Your task to perform on an android device: toggle improve location accuracy Image 0: 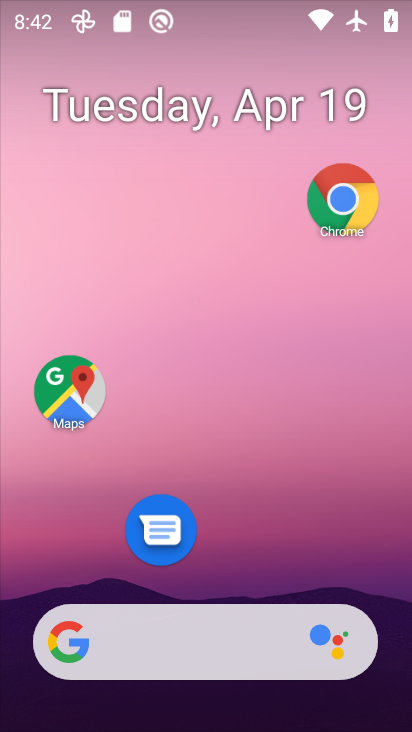
Step 0: drag from (211, 553) to (208, 269)
Your task to perform on an android device: toggle improve location accuracy Image 1: 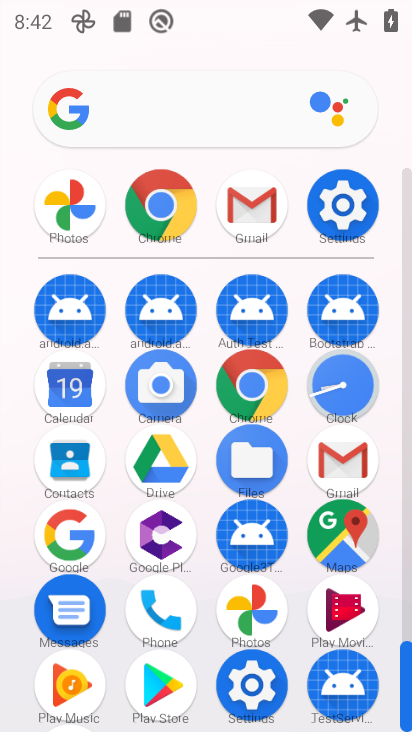
Step 1: click (244, 682)
Your task to perform on an android device: toggle improve location accuracy Image 2: 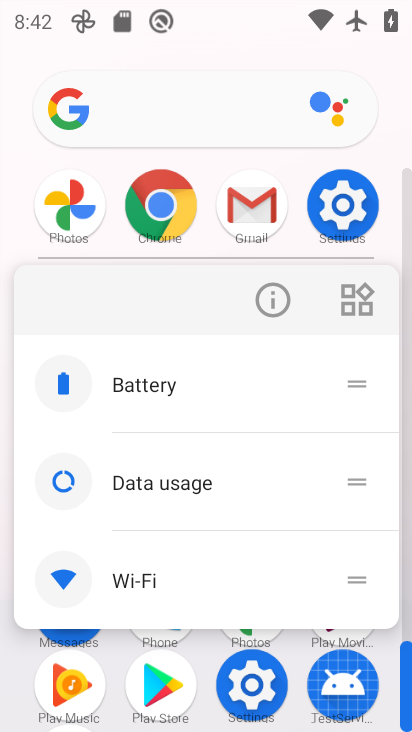
Step 2: click (269, 302)
Your task to perform on an android device: toggle improve location accuracy Image 3: 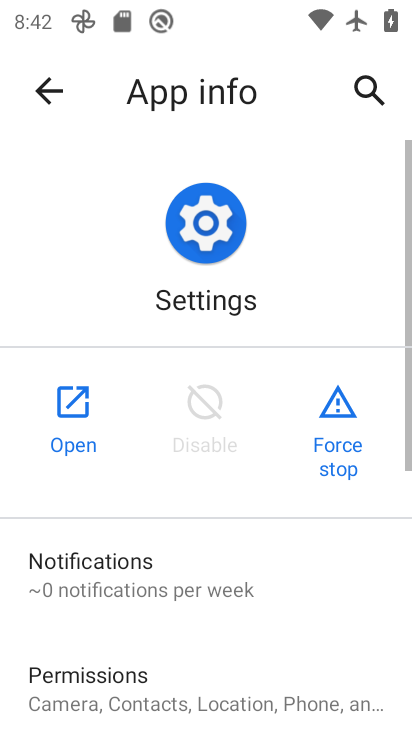
Step 3: click (93, 417)
Your task to perform on an android device: toggle improve location accuracy Image 4: 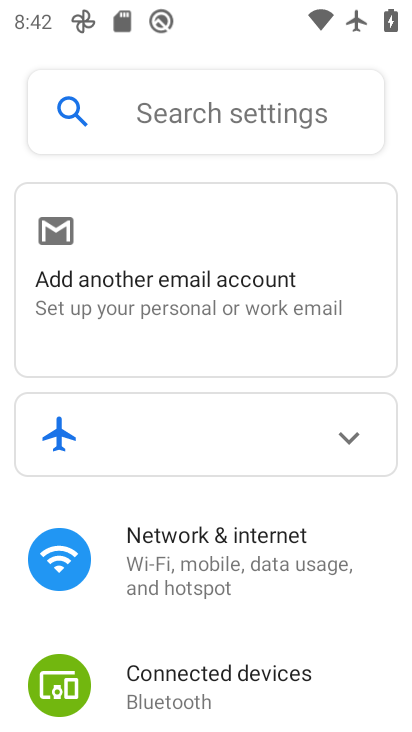
Step 4: drag from (248, 574) to (324, 218)
Your task to perform on an android device: toggle improve location accuracy Image 5: 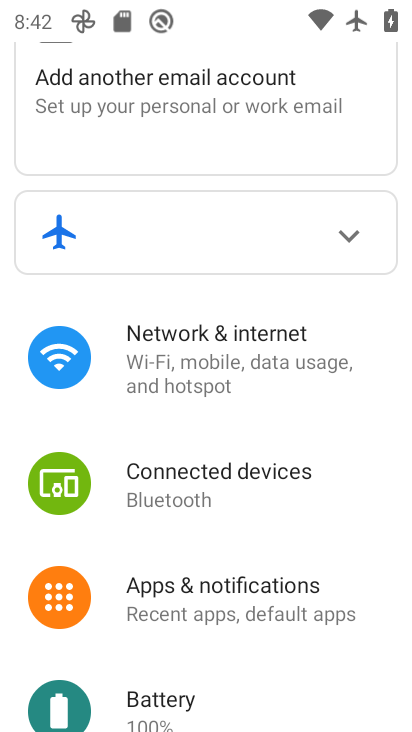
Step 5: drag from (249, 706) to (360, 236)
Your task to perform on an android device: toggle improve location accuracy Image 6: 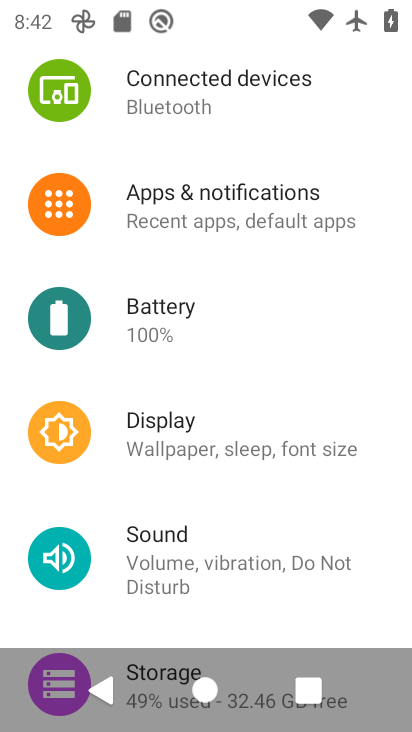
Step 6: drag from (206, 579) to (345, 97)
Your task to perform on an android device: toggle improve location accuracy Image 7: 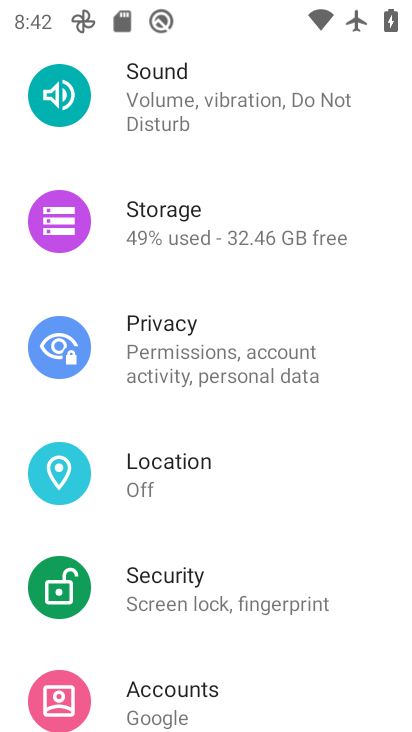
Step 7: drag from (198, 594) to (241, 339)
Your task to perform on an android device: toggle improve location accuracy Image 8: 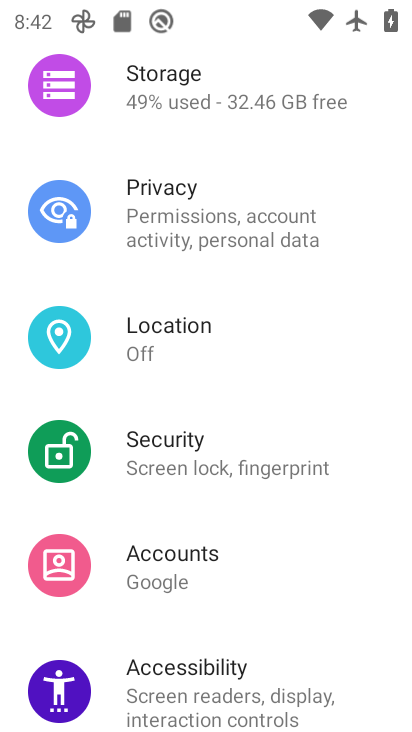
Step 8: click (151, 334)
Your task to perform on an android device: toggle improve location accuracy Image 9: 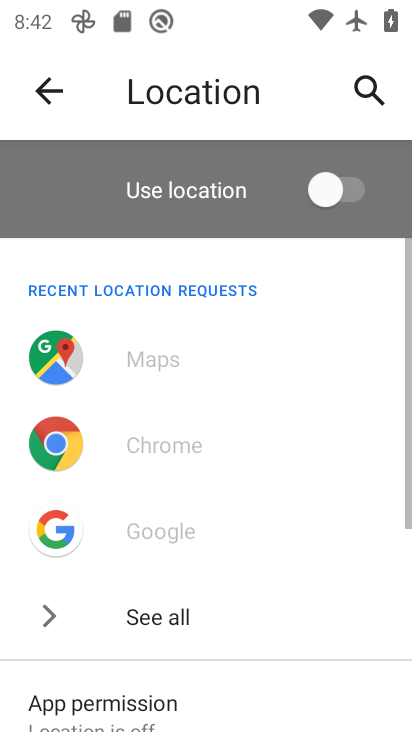
Step 9: drag from (211, 561) to (283, 210)
Your task to perform on an android device: toggle improve location accuracy Image 10: 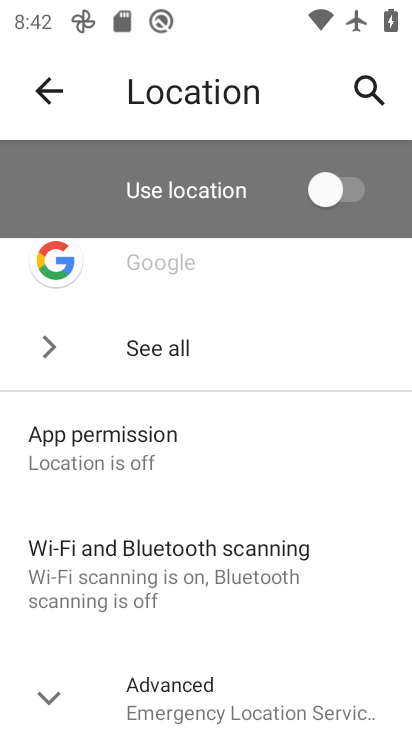
Step 10: drag from (242, 627) to (236, 225)
Your task to perform on an android device: toggle improve location accuracy Image 11: 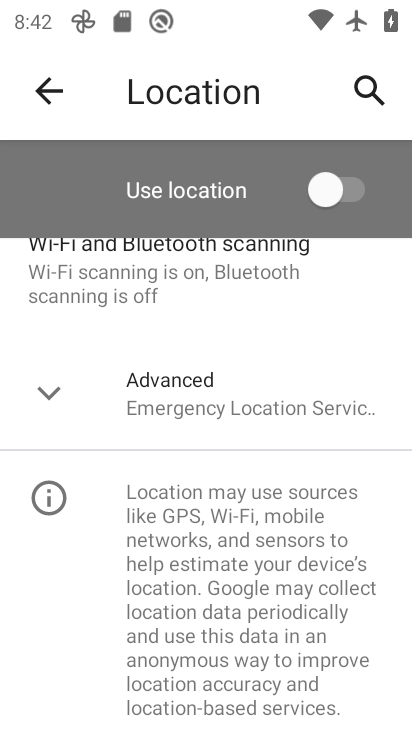
Step 11: click (180, 396)
Your task to perform on an android device: toggle improve location accuracy Image 12: 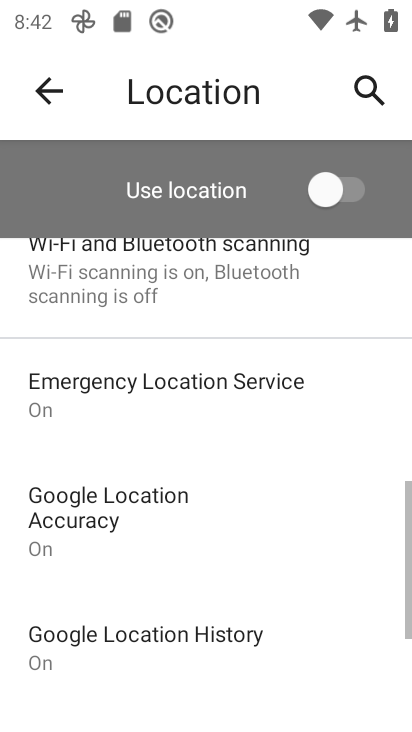
Step 12: drag from (268, 559) to (266, 377)
Your task to perform on an android device: toggle improve location accuracy Image 13: 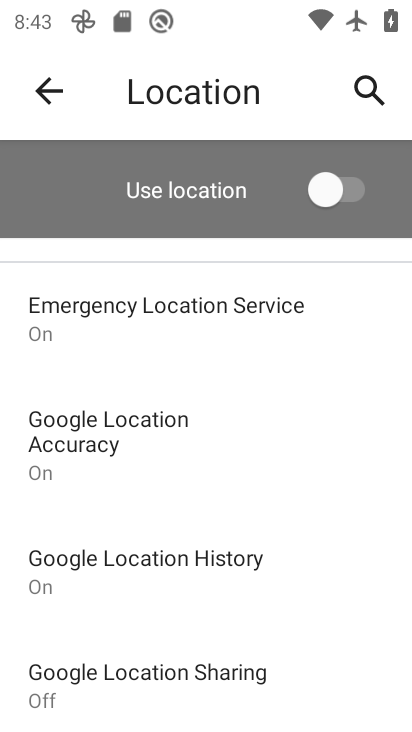
Step 13: click (164, 453)
Your task to perform on an android device: toggle improve location accuracy Image 14: 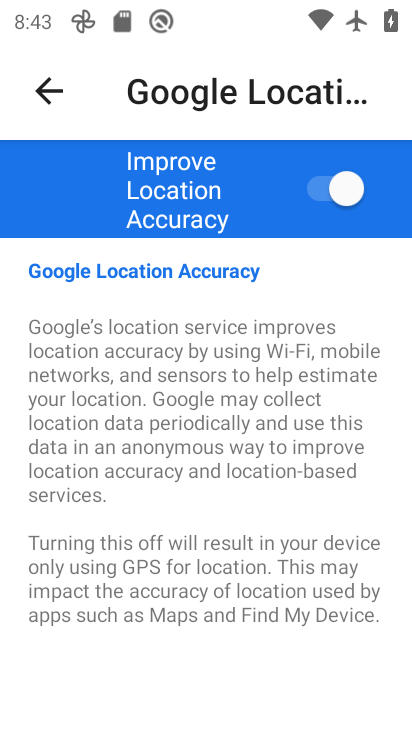
Step 14: drag from (247, 508) to (269, 364)
Your task to perform on an android device: toggle improve location accuracy Image 15: 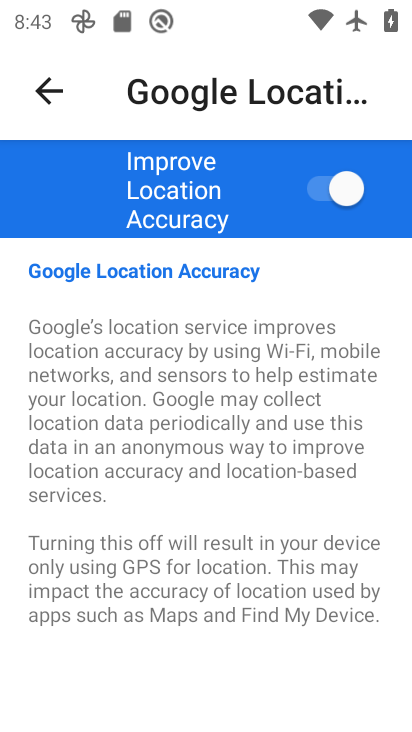
Step 15: drag from (242, 592) to (249, 337)
Your task to perform on an android device: toggle improve location accuracy Image 16: 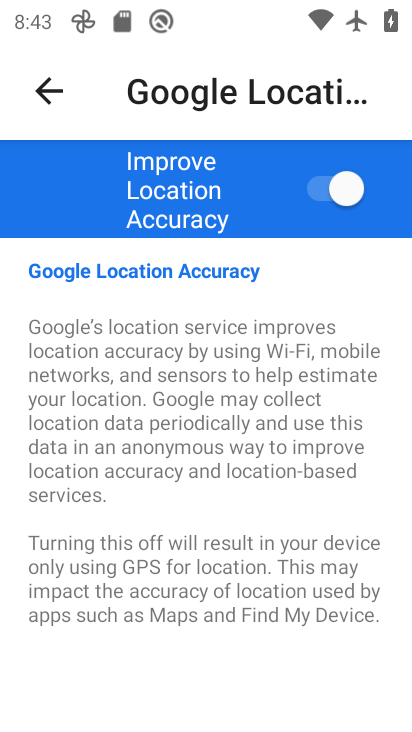
Step 16: drag from (220, 546) to (237, 349)
Your task to perform on an android device: toggle improve location accuracy Image 17: 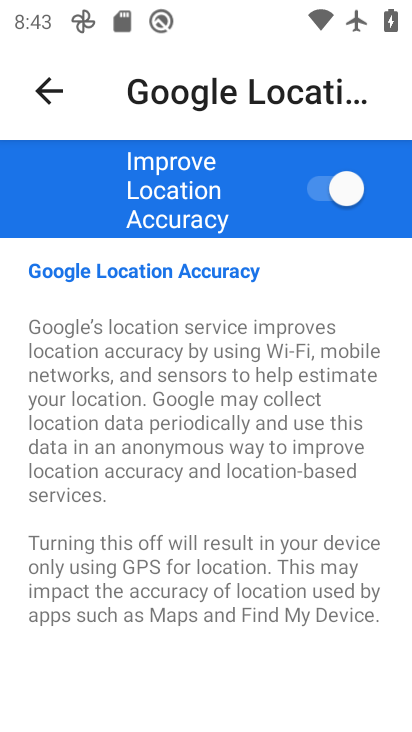
Step 17: drag from (238, 564) to (237, 402)
Your task to perform on an android device: toggle improve location accuracy Image 18: 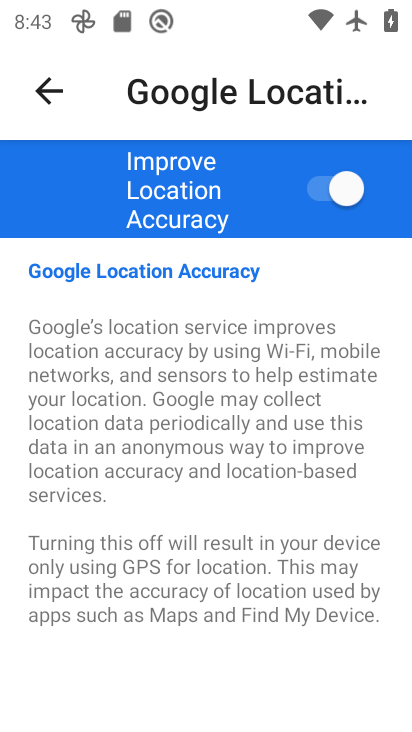
Step 18: click (251, 476)
Your task to perform on an android device: toggle improve location accuracy Image 19: 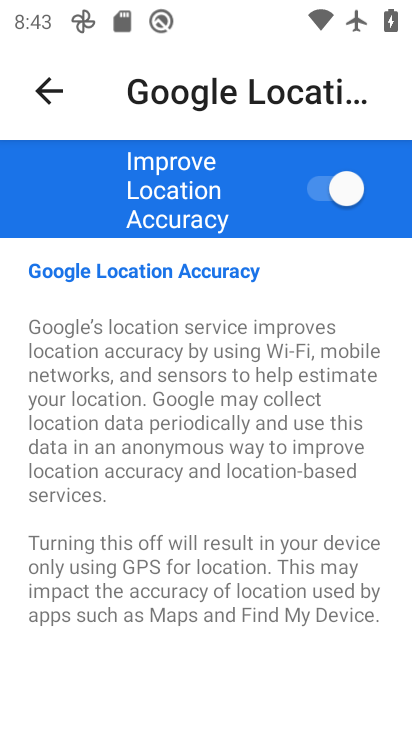
Step 19: drag from (270, 573) to (291, 376)
Your task to perform on an android device: toggle improve location accuracy Image 20: 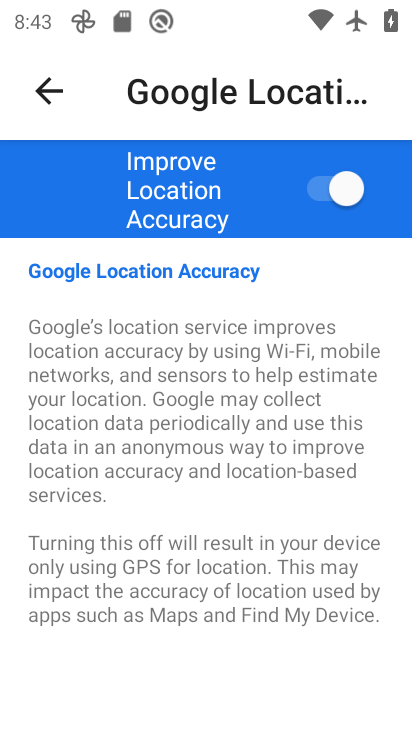
Step 20: drag from (257, 568) to (293, 407)
Your task to perform on an android device: toggle improve location accuracy Image 21: 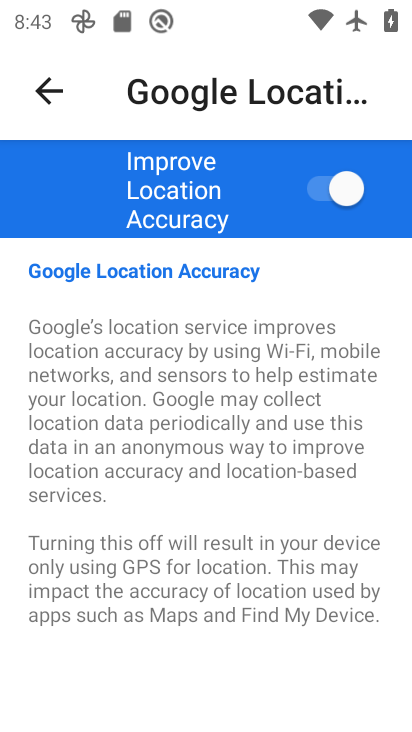
Step 21: drag from (174, 527) to (217, 339)
Your task to perform on an android device: toggle improve location accuracy Image 22: 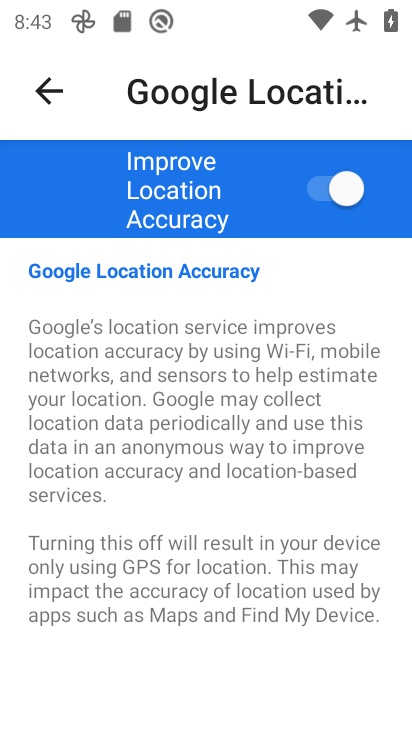
Step 22: click (341, 188)
Your task to perform on an android device: toggle improve location accuracy Image 23: 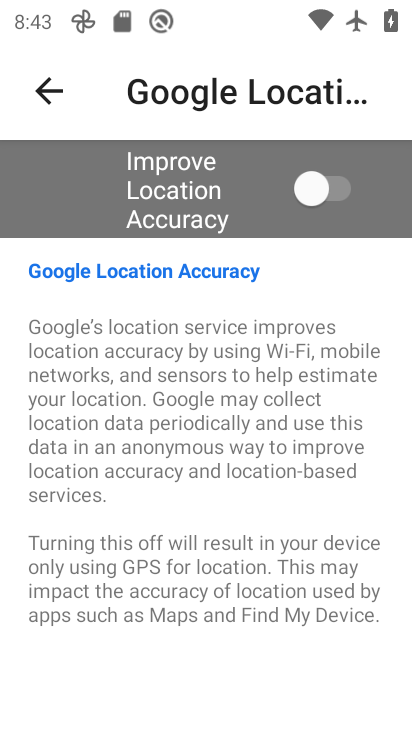
Step 23: task complete